Your task to perform on an android device: read, delete, or share a saved page in the chrome app Image 0: 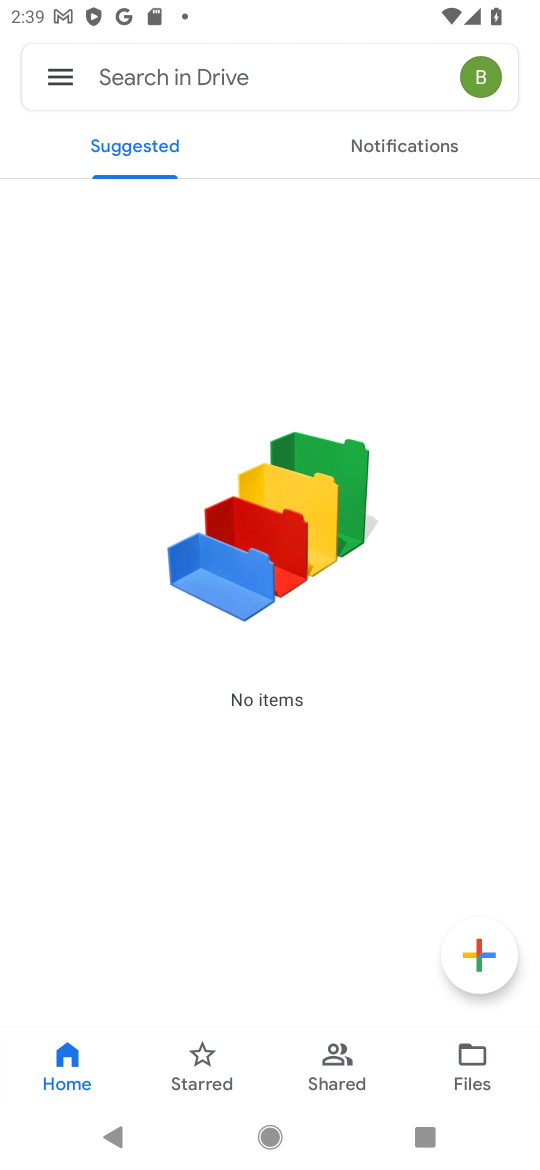
Step 0: task complete